Your task to perform on an android device: Open calendar and show me the first week of next month Image 0: 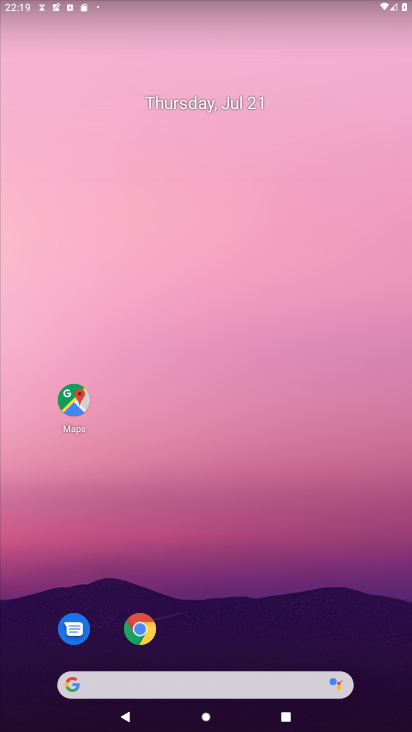
Step 0: drag from (239, 534) to (272, 164)
Your task to perform on an android device: Open calendar and show me the first week of next month Image 1: 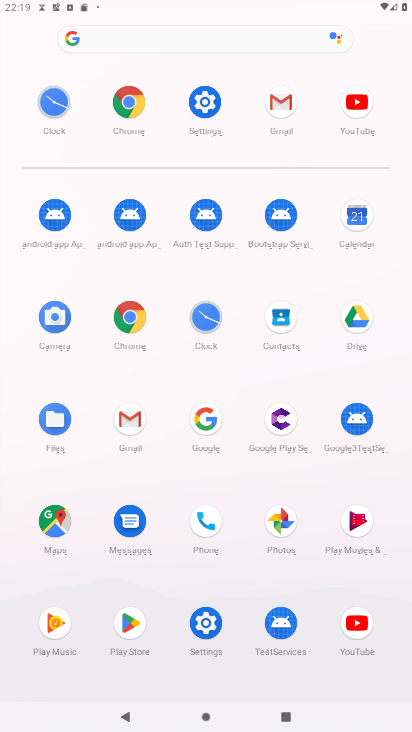
Step 1: click (347, 219)
Your task to perform on an android device: Open calendar and show me the first week of next month Image 2: 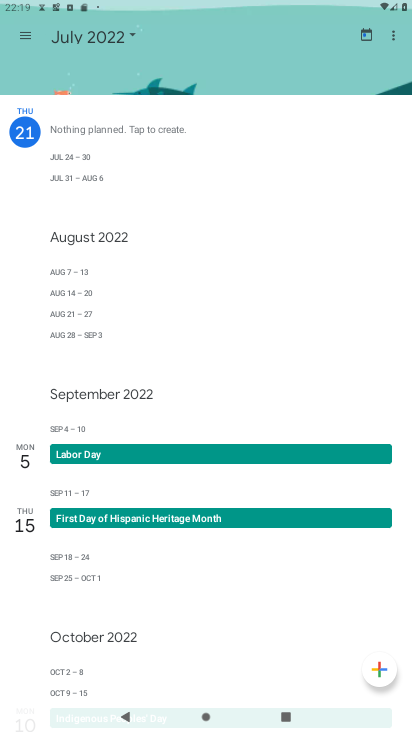
Step 2: click (86, 36)
Your task to perform on an android device: Open calendar and show me the first week of next month Image 3: 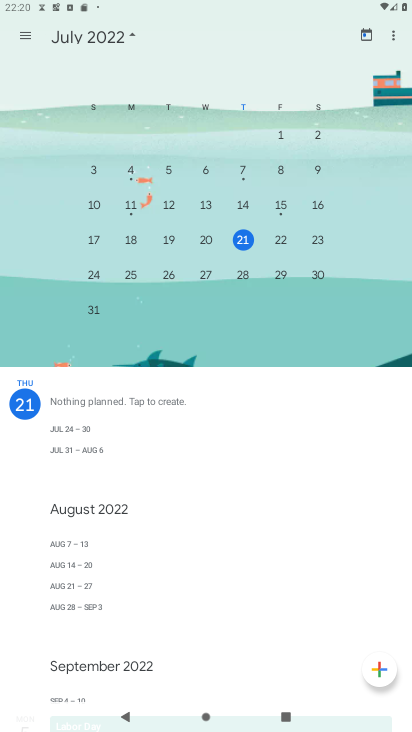
Step 3: drag from (329, 204) to (0, 177)
Your task to perform on an android device: Open calendar and show me the first week of next month Image 4: 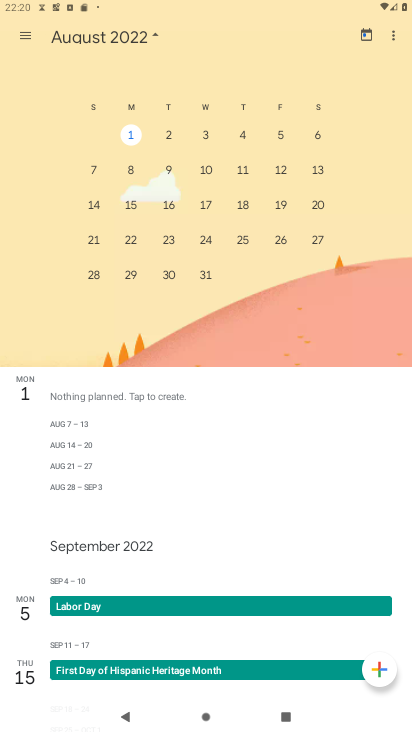
Step 4: click (143, 33)
Your task to perform on an android device: Open calendar and show me the first week of next month Image 5: 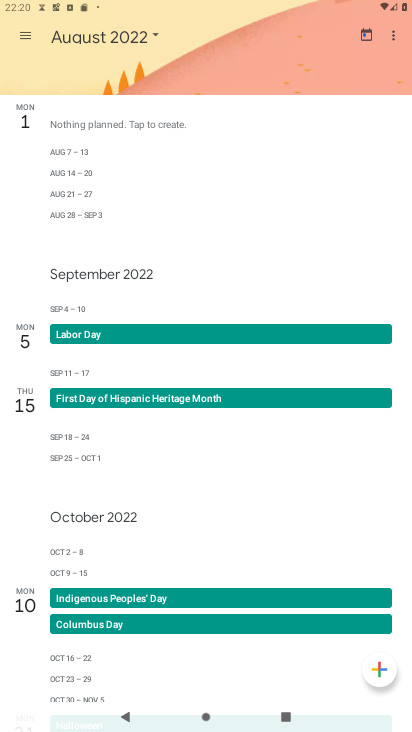
Step 5: click (21, 39)
Your task to perform on an android device: Open calendar and show me the first week of next month Image 6: 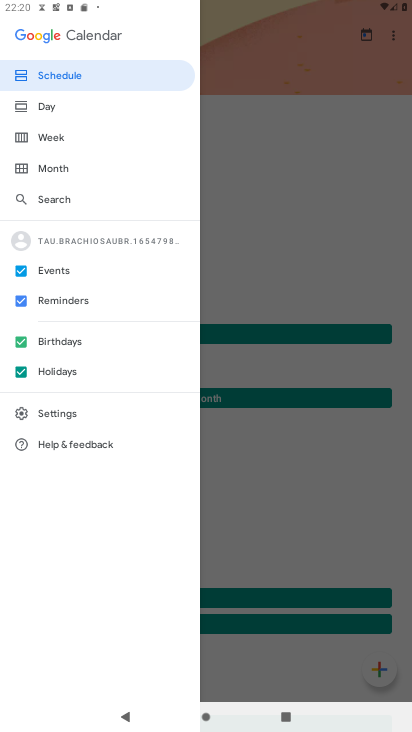
Step 6: click (47, 139)
Your task to perform on an android device: Open calendar and show me the first week of next month Image 7: 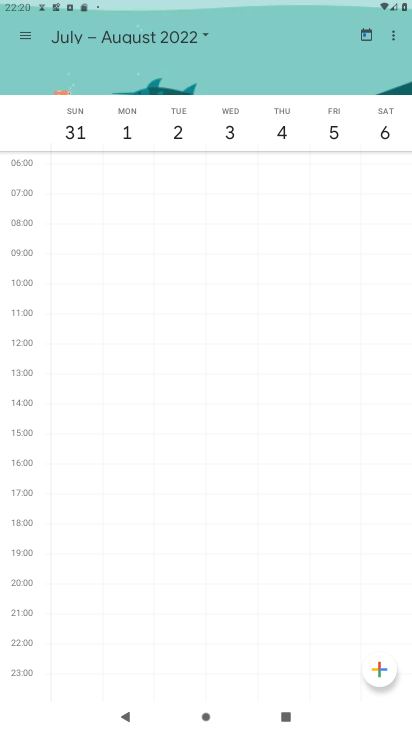
Step 7: task complete